Your task to perform on an android device: Open internet settings Image 0: 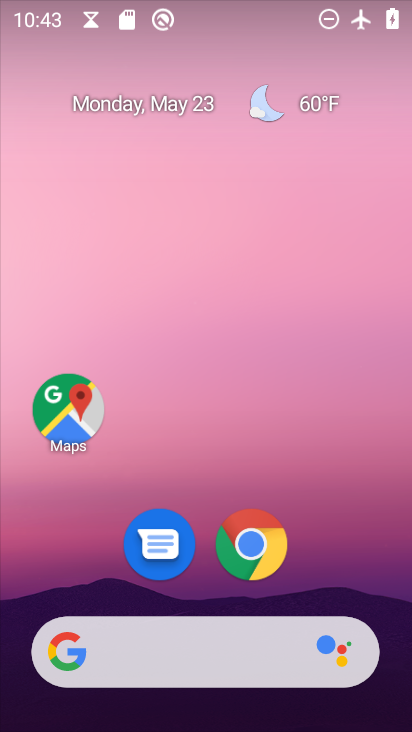
Step 0: drag from (314, 573) to (98, 187)
Your task to perform on an android device: Open internet settings Image 1: 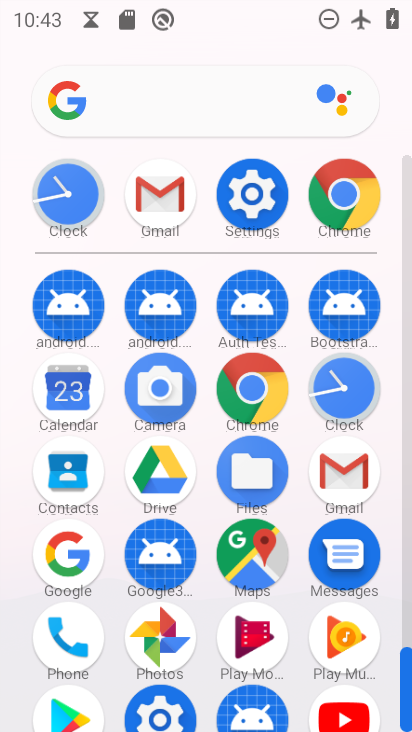
Step 1: click (245, 210)
Your task to perform on an android device: Open internet settings Image 2: 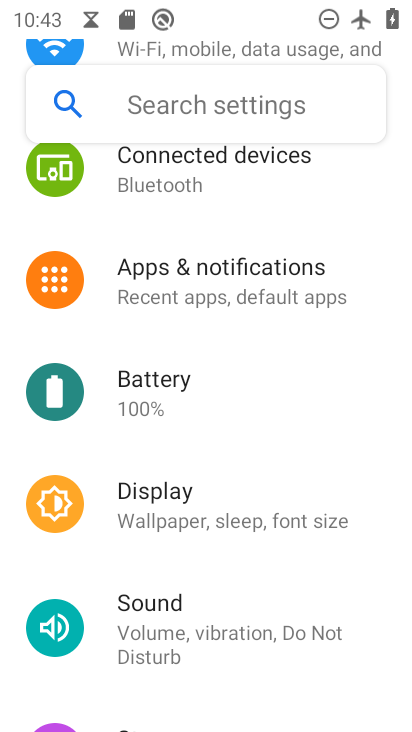
Step 2: drag from (245, 210) to (237, 401)
Your task to perform on an android device: Open internet settings Image 3: 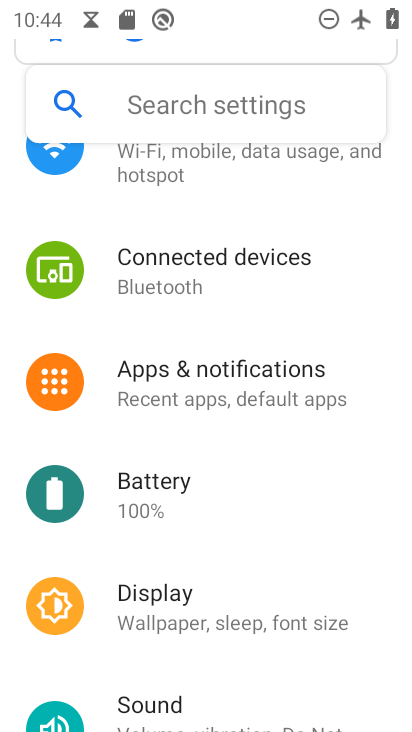
Step 3: click (210, 172)
Your task to perform on an android device: Open internet settings Image 4: 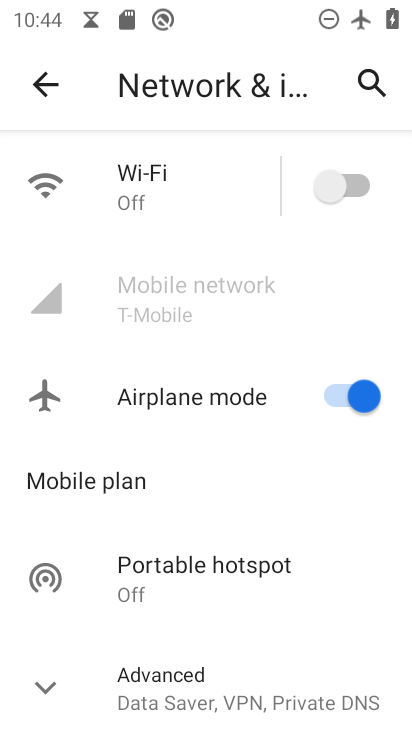
Step 4: task complete